Your task to perform on an android device: open a bookmark in the chrome app Image 0: 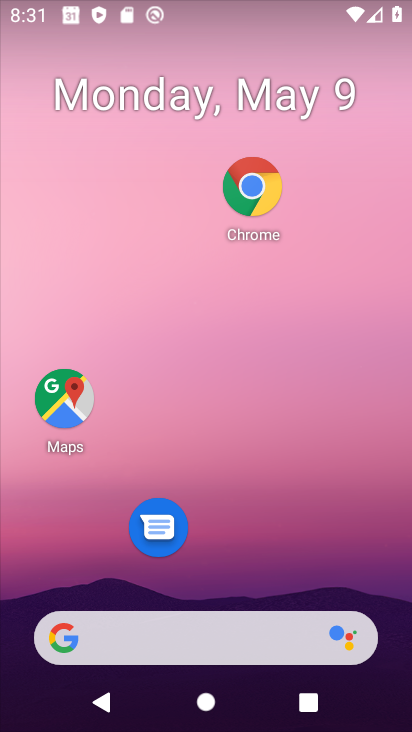
Step 0: click (249, 175)
Your task to perform on an android device: open a bookmark in the chrome app Image 1: 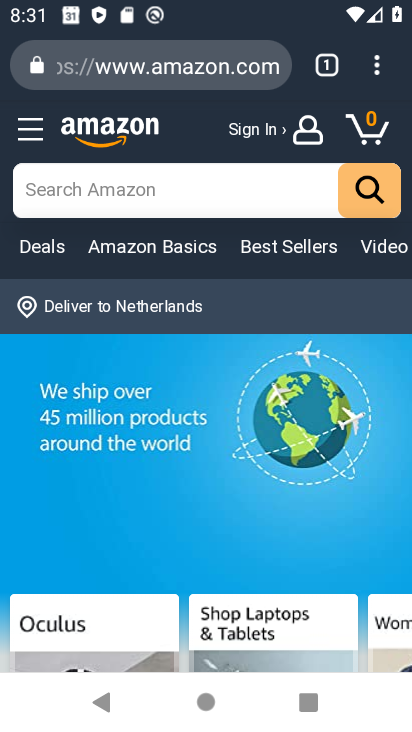
Step 1: click (377, 60)
Your task to perform on an android device: open a bookmark in the chrome app Image 2: 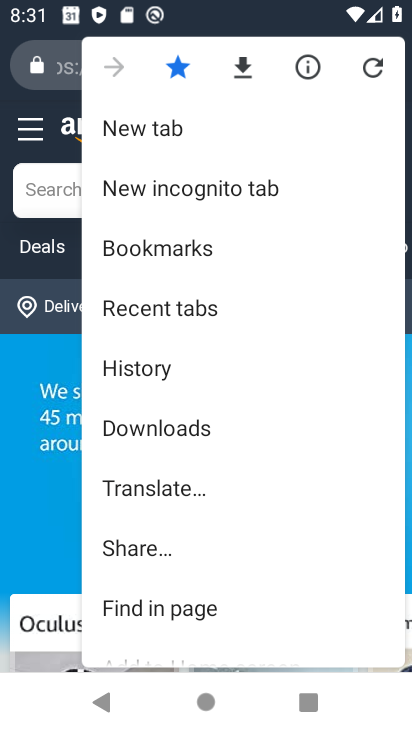
Step 2: click (215, 245)
Your task to perform on an android device: open a bookmark in the chrome app Image 3: 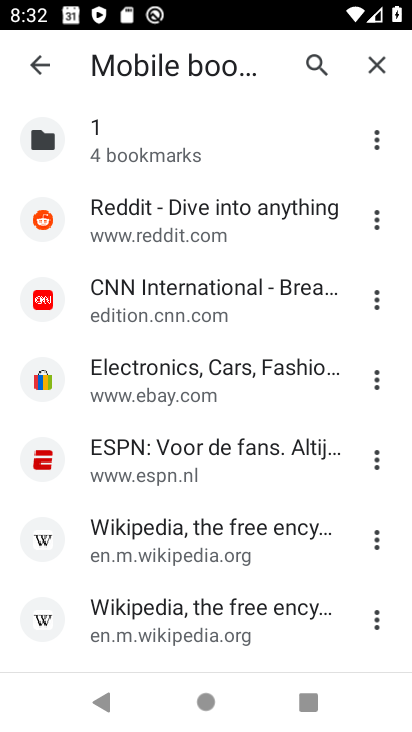
Step 3: click (167, 381)
Your task to perform on an android device: open a bookmark in the chrome app Image 4: 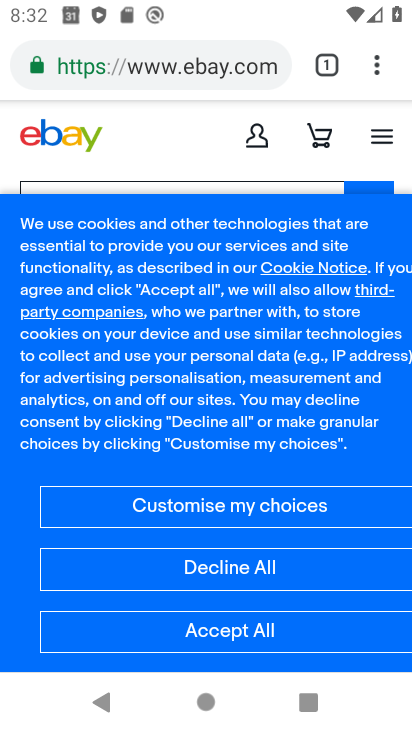
Step 4: task complete